Your task to perform on an android device: Open the Play Movies app and select the watchlist tab. Image 0: 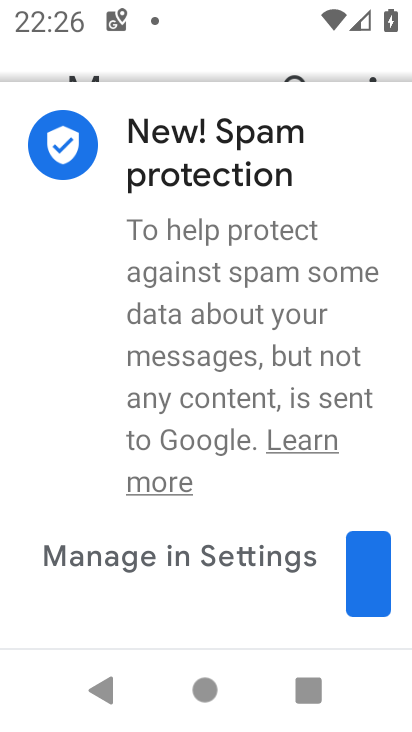
Step 0: press home button
Your task to perform on an android device: Open the Play Movies app and select the watchlist tab. Image 1: 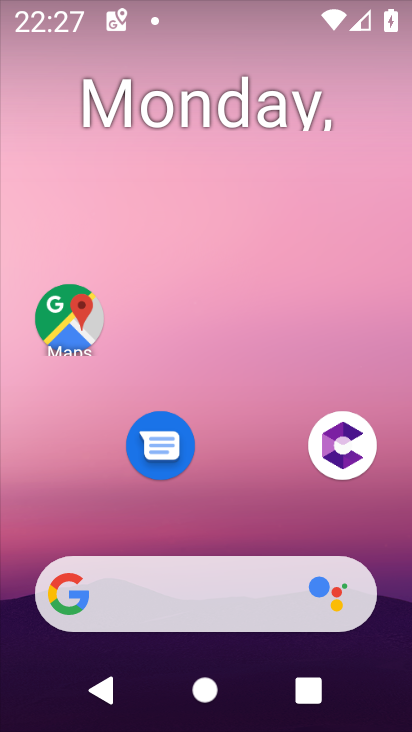
Step 1: drag from (235, 439) to (246, 180)
Your task to perform on an android device: Open the Play Movies app and select the watchlist tab. Image 2: 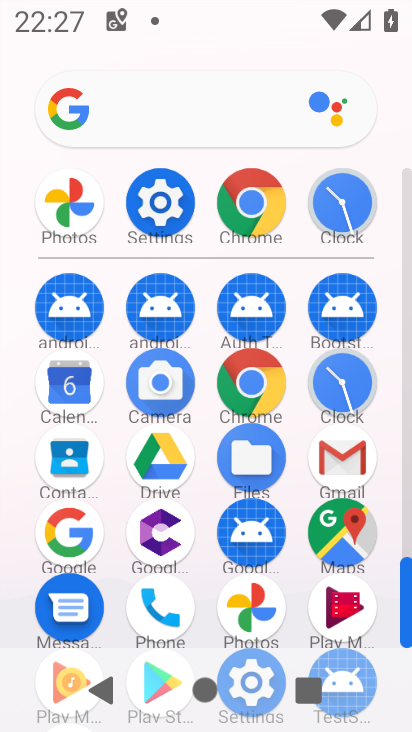
Step 2: drag from (390, 554) to (378, 287)
Your task to perform on an android device: Open the Play Movies app and select the watchlist tab. Image 3: 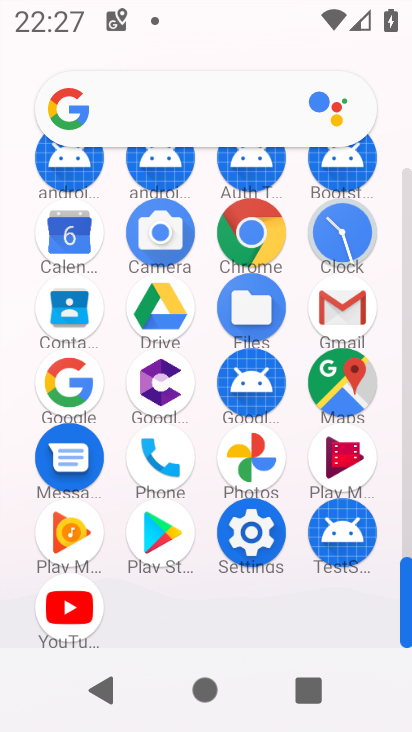
Step 3: click (334, 452)
Your task to perform on an android device: Open the Play Movies app and select the watchlist tab. Image 4: 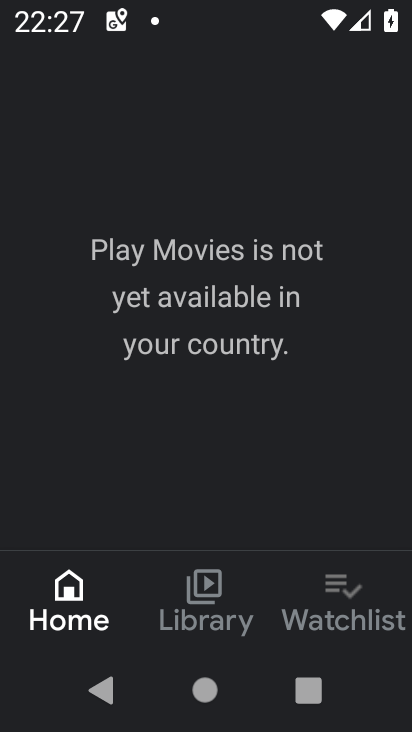
Step 4: click (333, 604)
Your task to perform on an android device: Open the Play Movies app and select the watchlist tab. Image 5: 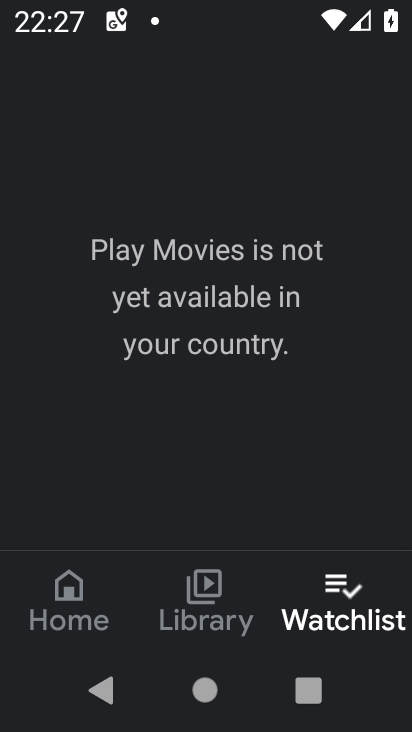
Step 5: task complete